Your task to perform on an android device: Go to Yahoo.com Image 0: 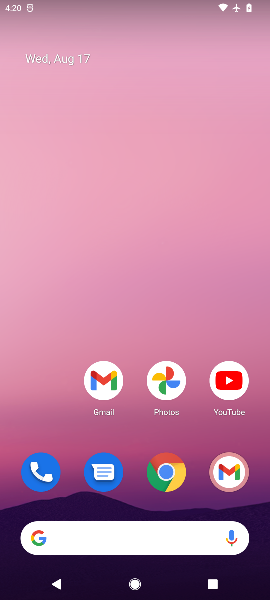
Step 0: click (167, 469)
Your task to perform on an android device: Go to Yahoo.com Image 1: 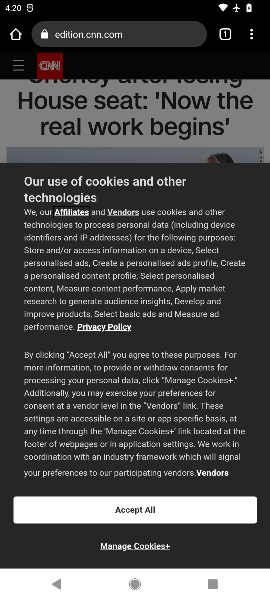
Step 1: click (116, 34)
Your task to perform on an android device: Go to Yahoo.com Image 2: 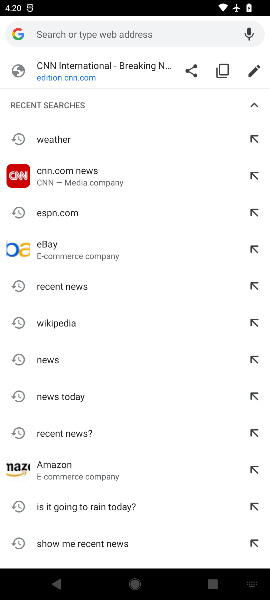
Step 2: type "yahoo.com"
Your task to perform on an android device: Go to Yahoo.com Image 3: 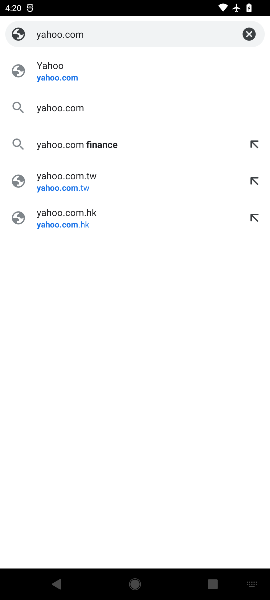
Step 3: click (82, 77)
Your task to perform on an android device: Go to Yahoo.com Image 4: 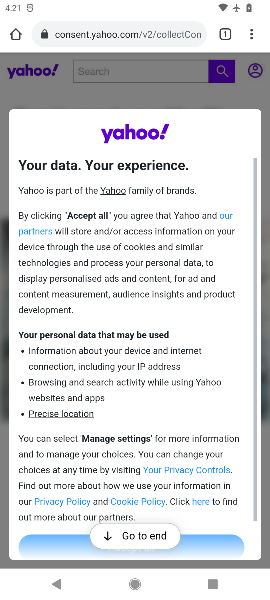
Step 4: task complete